Your task to perform on an android device: find snoozed emails in the gmail app Image 0: 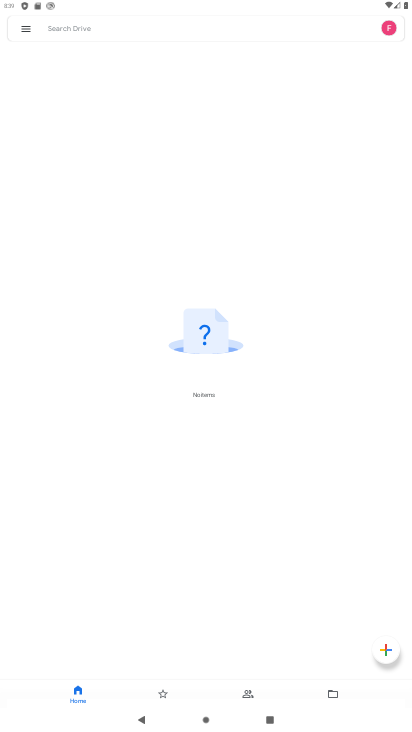
Step 0: press home button
Your task to perform on an android device: find snoozed emails in the gmail app Image 1: 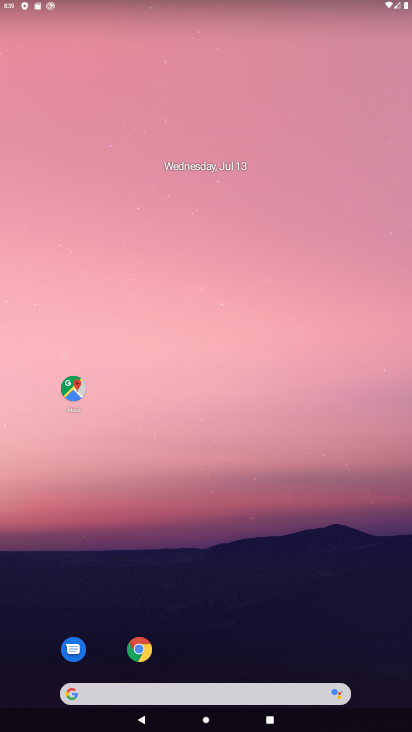
Step 1: drag from (209, 616) to (299, 74)
Your task to perform on an android device: find snoozed emails in the gmail app Image 2: 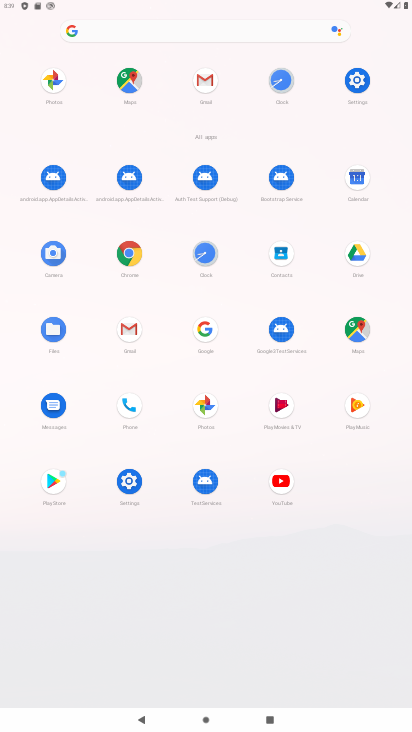
Step 2: click (215, 74)
Your task to perform on an android device: find snoozed emails in the gmail app Image 3: 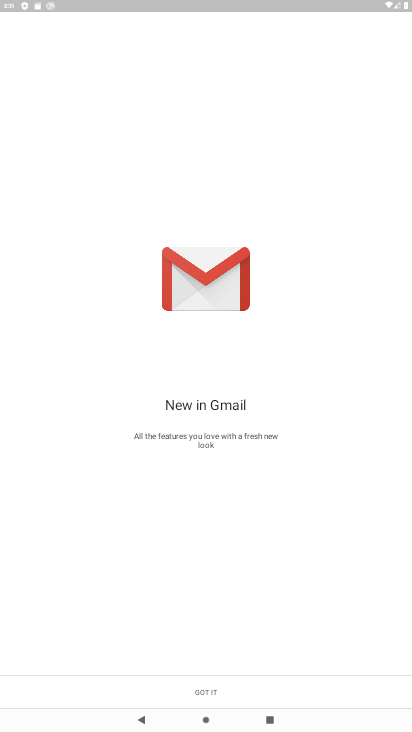
Step 3: click (248, 685)
Your task to perform on an android device: find snoozed emails in the gmail app Image 4: 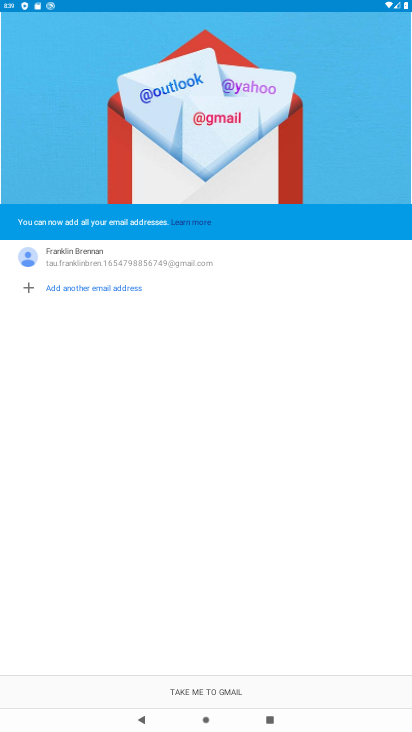
Step 4: click (248, 685)
Your task to perform on an android device: find snoozed emails in the gmail app Image 5: 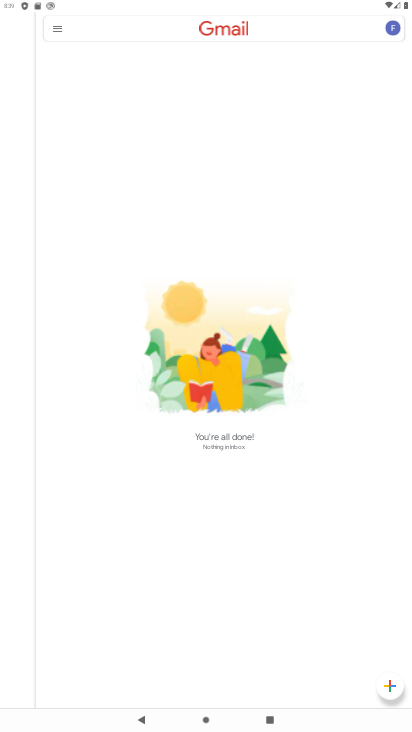
Step 5: click (18, 29)
Your task to perform on an android device: find snoozed emails in the gmail app Image 6: 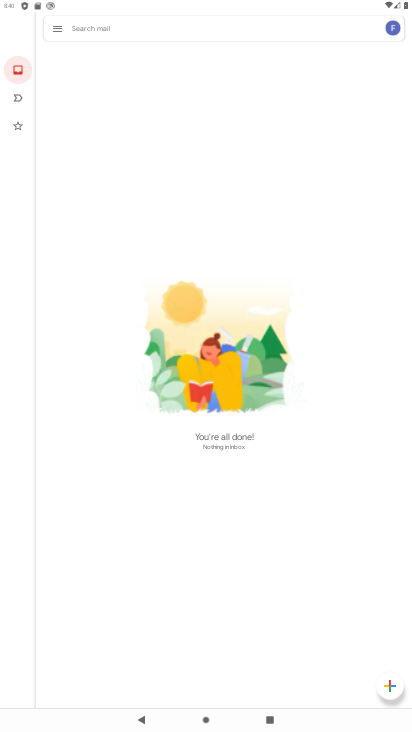
Step 6: click (66, 30)
Your task to perform on an android device: find snoozed emails in the gmail app Image 7: 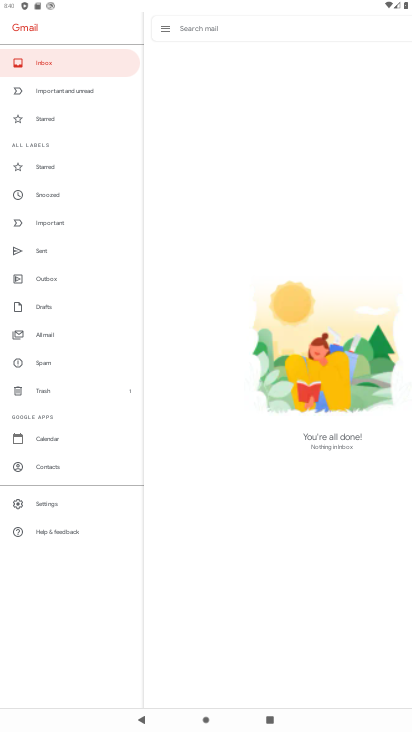
Step 7: click (56, 199)
Your task to perform on an android device: find snoozed emails in the gmail app Image 8: 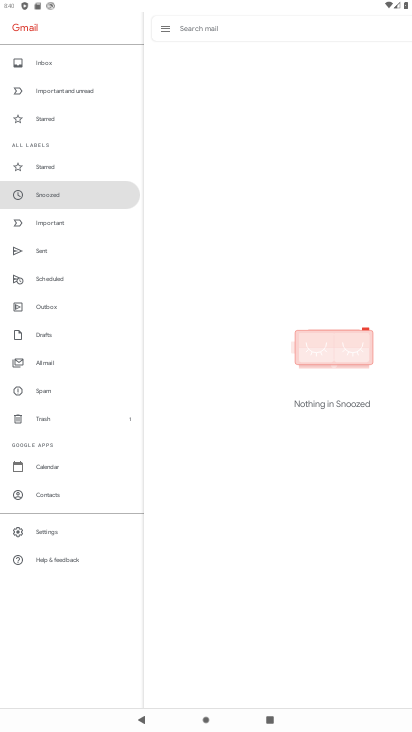
Step 8: task complete